Your task to perform on an android device: Open the web browser Image 0: 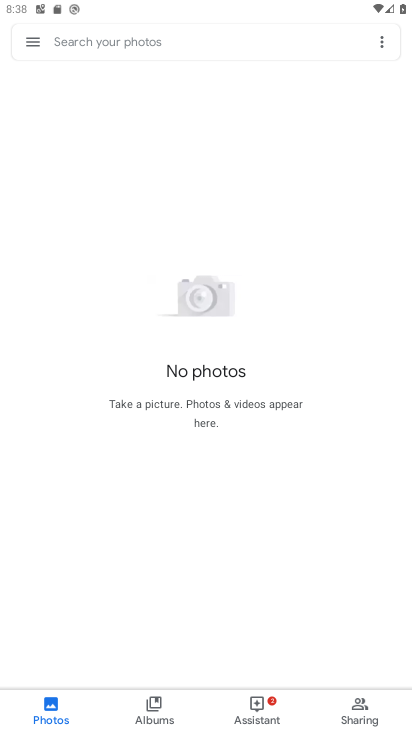
Step 0: task complete